Your task to perform on an android device: Search for pizza restaurants on Maps Image 0: 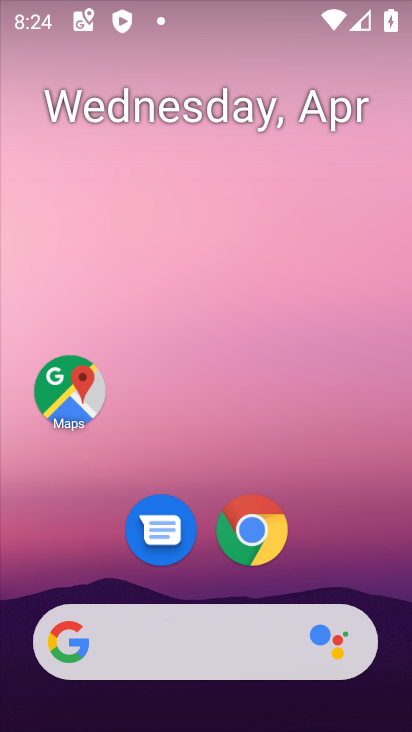
Step 0: drag from (331, 535) to (287, 204)
Your task to perform on an android device: Search for pizza restaurants on Maps Image 1: 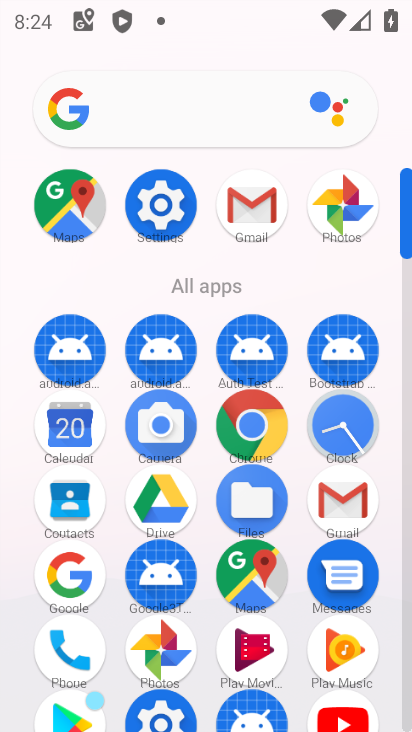
Step 1: click (96, 218)
Your task to perform on an android device: Search for pizza restaurants on Maps Image 2: 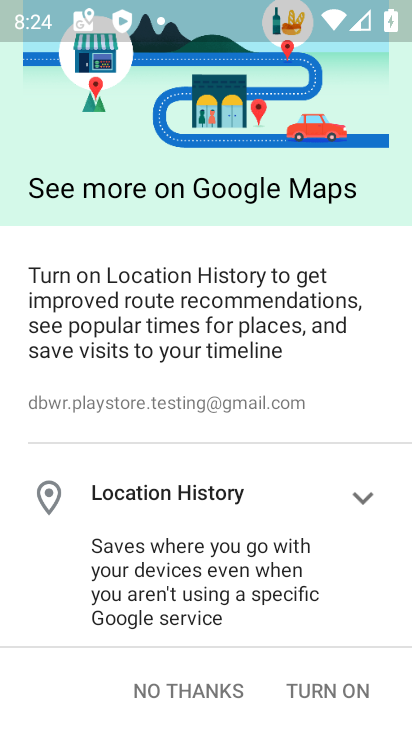
Step 2: click (183, 683)
Your task to perform on an android device: Search for pizza restaurants on Maps Image 3: 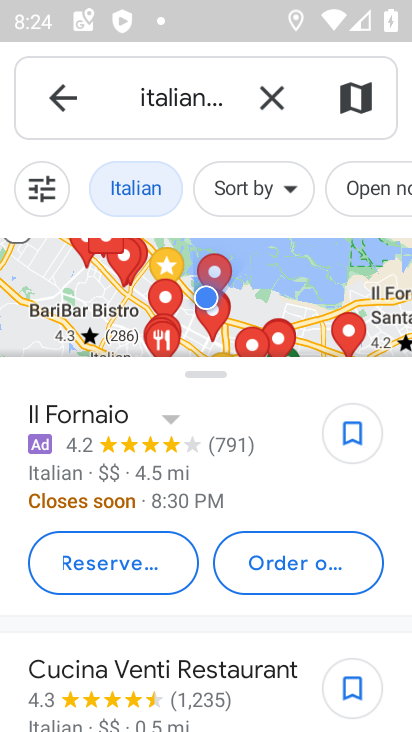
Step 3: click (275, 95)
Your task to perform on an android device: Search for pizza restaurants on Maps Image 4: 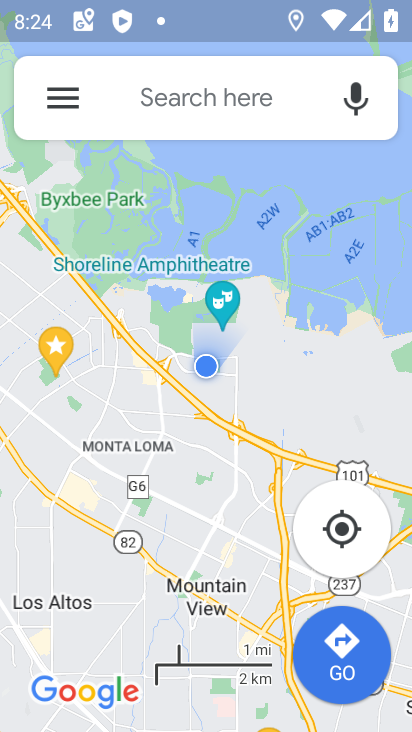
Step 4: click (275, 95)
Your task to perform on an android device: Search for pizza restaurants on Maps Image 5: 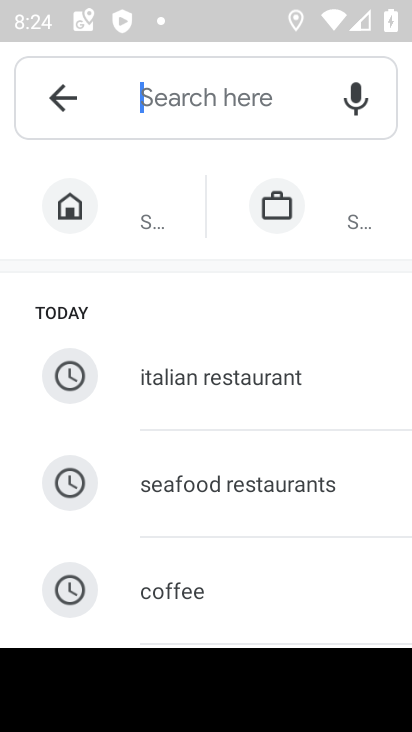
Step 5: type "pizza restaurants"
Your task to perform on an android device: Search for pizza restaurants on Maps Image 6: 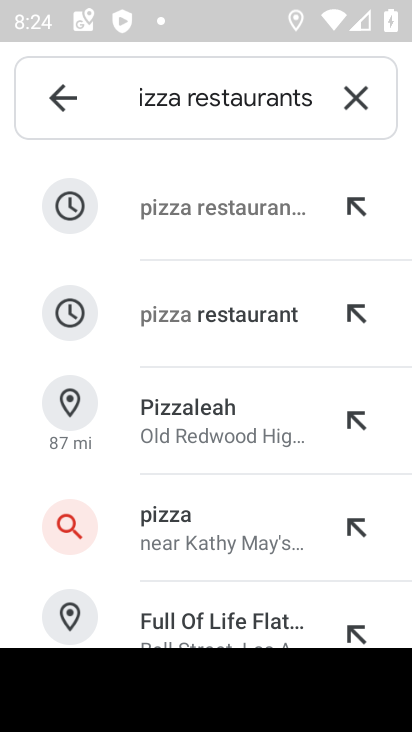
Step 6: click (232, 217)
Your task to perform on an android device: Search for pizza restaurants on Maps Image 7: 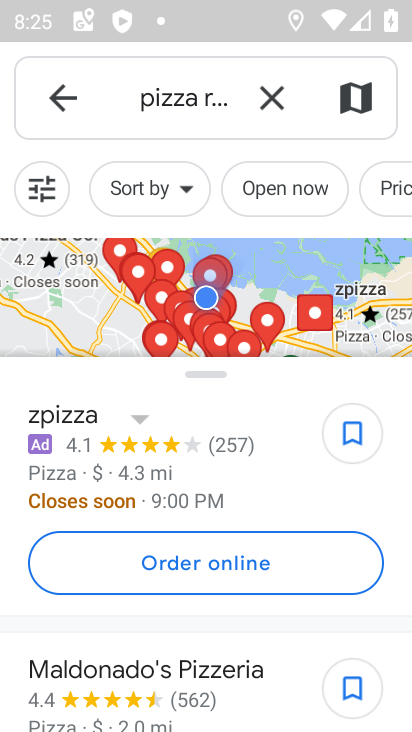
Step 7: task complete